Your task to perform on an android device: What's on my calendar today? Image 0: 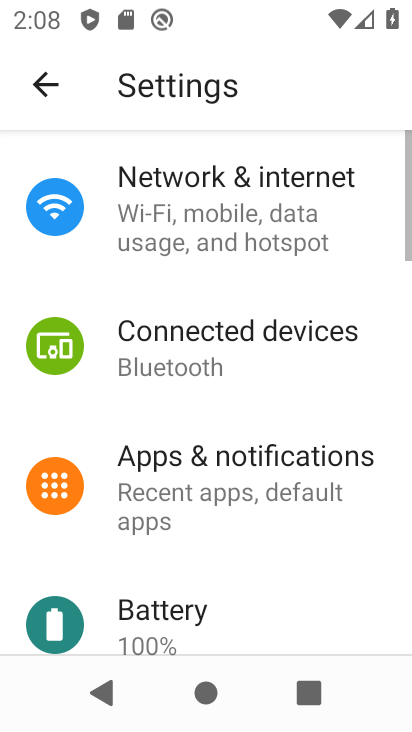
Step 0: press home button
Your task to perform on an android device: What's on my calendar today? Image 1: 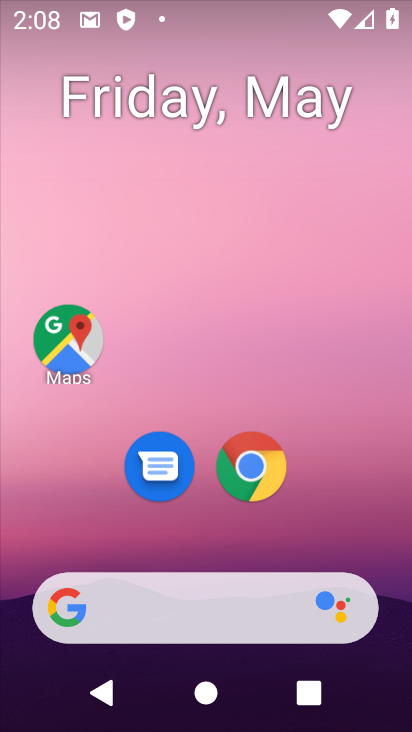
Step 1: drag from (330, 505) to (362, 390)
Your task to perform on an android device: What's on my calendar today? Image 2: 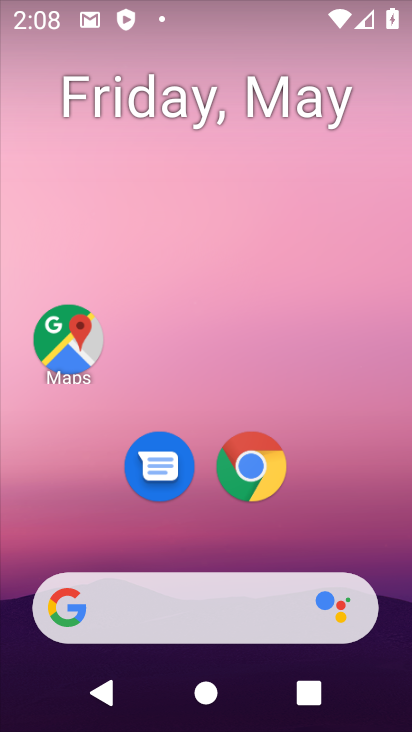
Step 2: click (63, 463)
Your task to perform on an android device: What's on my calendar today? Image 3: 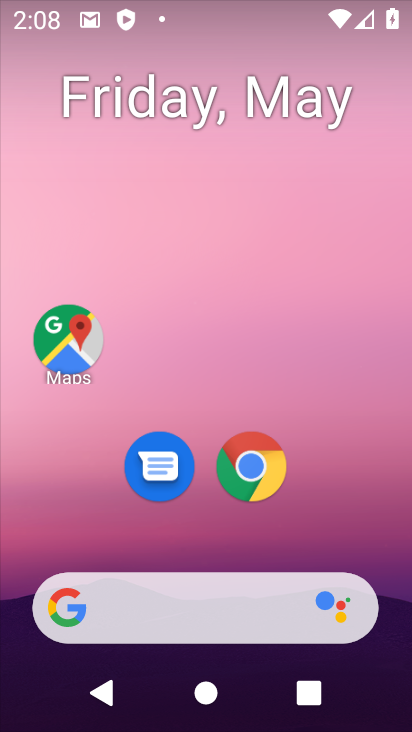
Step 3: drag from (73, 507) to (245, 73)
Your task to perform on an android device: What's on my calendar today? Image 4: 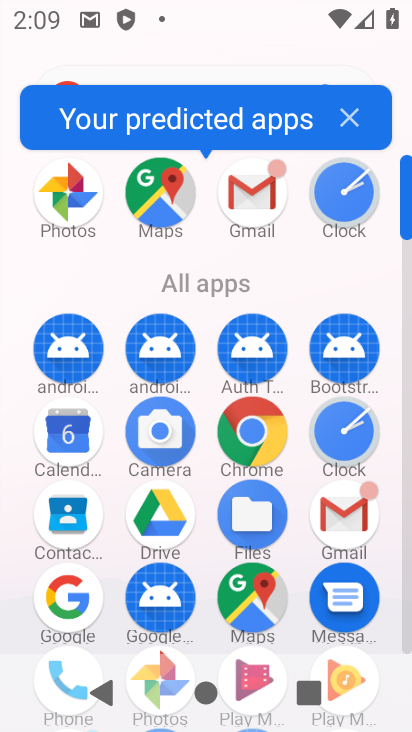
Step 4: click (69, 457)
Your task to perform on an android device: What's on my calendar today? Image 5: 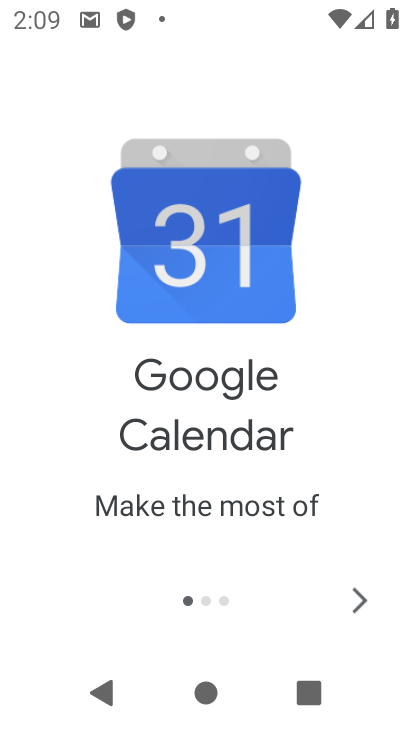
Step 5: click (358, 592)
Your task to perform on an android device: What's on my calendar today? Image 6: 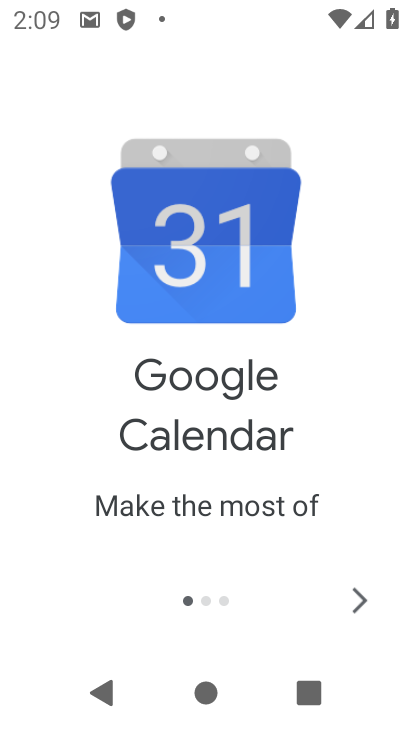
Step 6: click (358, 592)
Your task to perform on an android device: What's on my calendar today? Image 7: 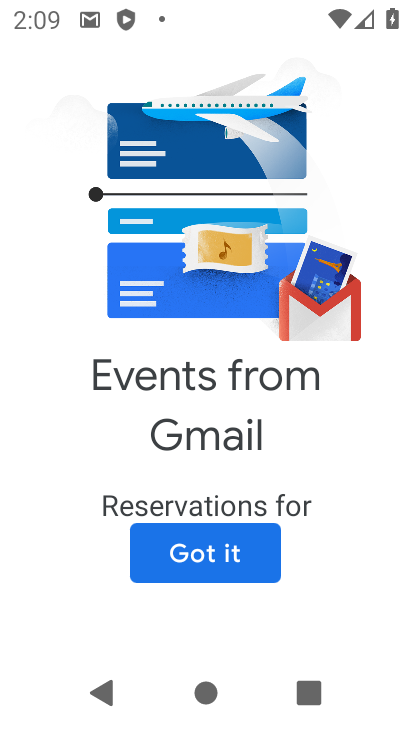
Step 7: click (236, 561)
Your task to perform on an android device: What's on my calendar today? Image 8: 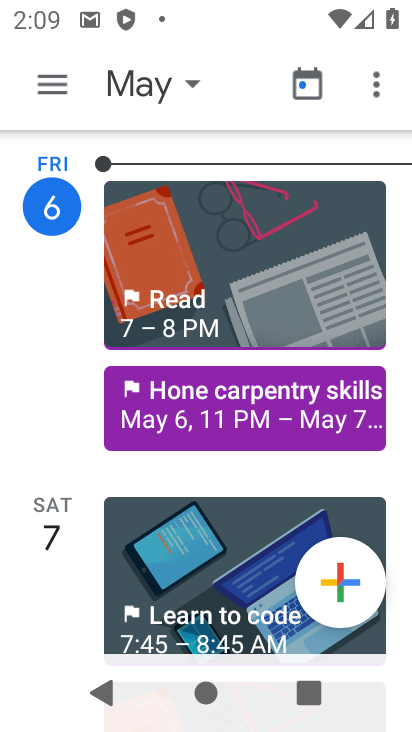
Step 8: task complete